Your task to perform on an android device: toggle show notifications on the lock screen Image 0: 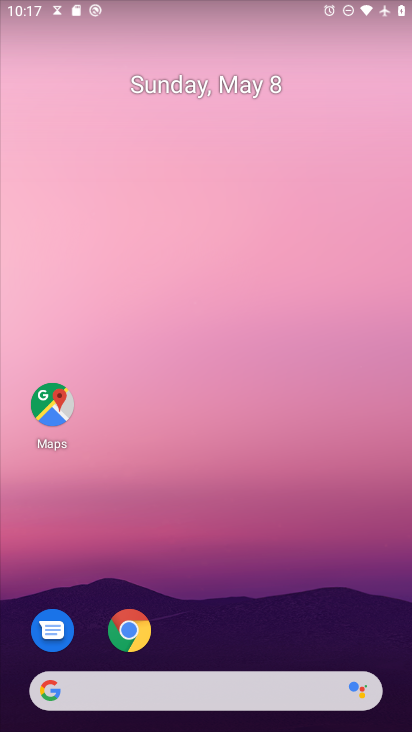
Step 0: drag from (224, 692) to (371, 365)
Your task to perform on an android device: toggle show notifications on the lock screen Image 1: 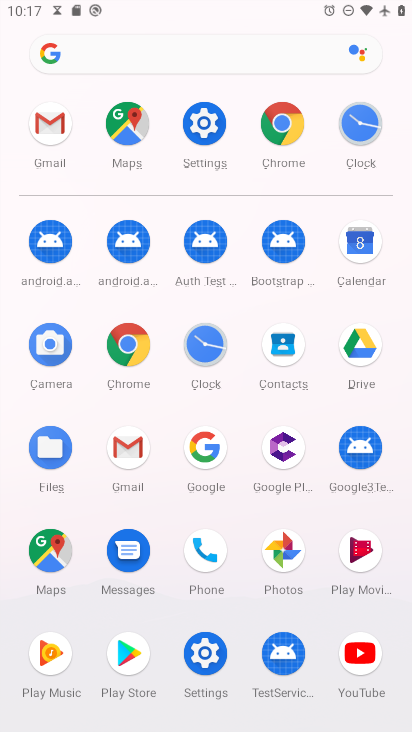
Step 1: click (210, 122)
Your task to perform on an android device: toggle show notifications on the lock screen Image 2: 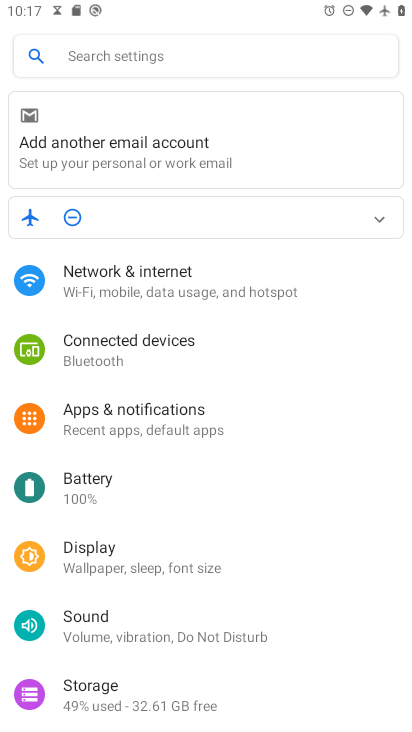
Step 2: click (136, 409)
Your task to perform on an android device: toggle show notifications on the lock screen Image 3: 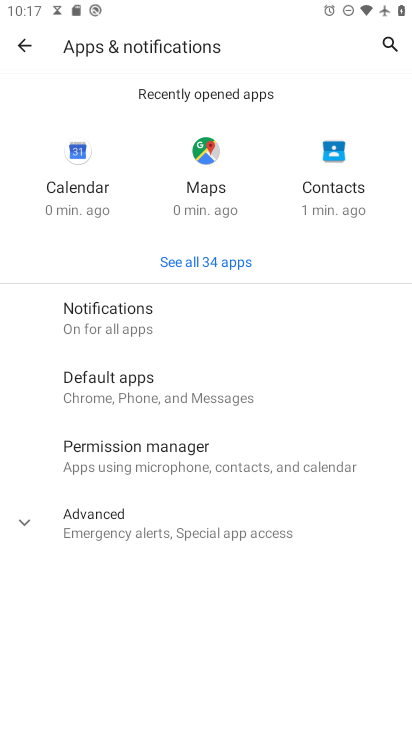
Step 3: click (141, 331)
Your task to perform on an android device: toggle show notifications on the lock screen Image 4: 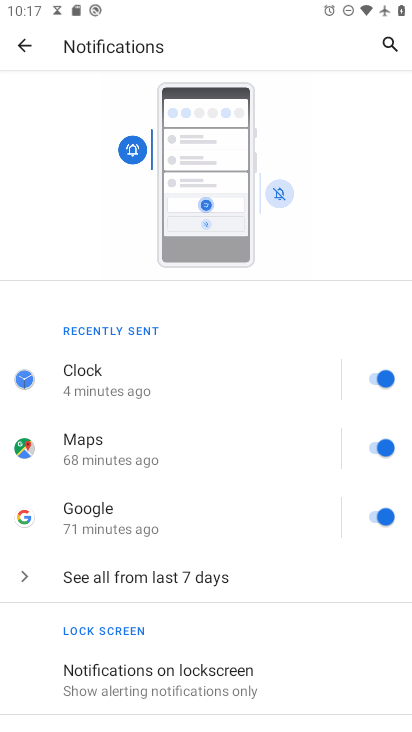
Step 4: click (183, 676)
Your task to perform on an android device: toggle show notifications on the lock screen Image 5: 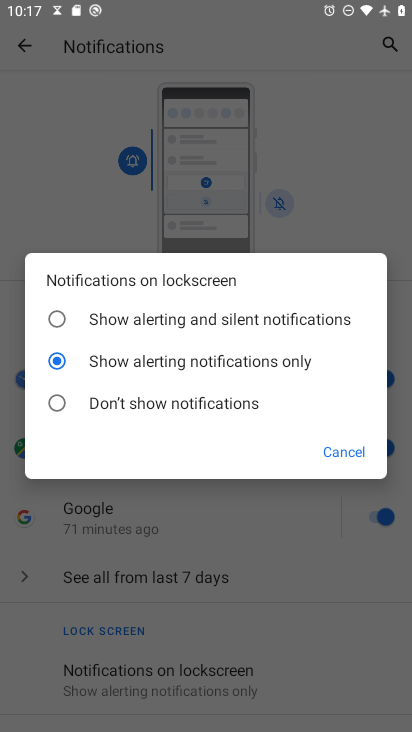
Step 5: click (53, 316)
Your task to perform on an android device: toggle show notifications on the lock screen Image 6: 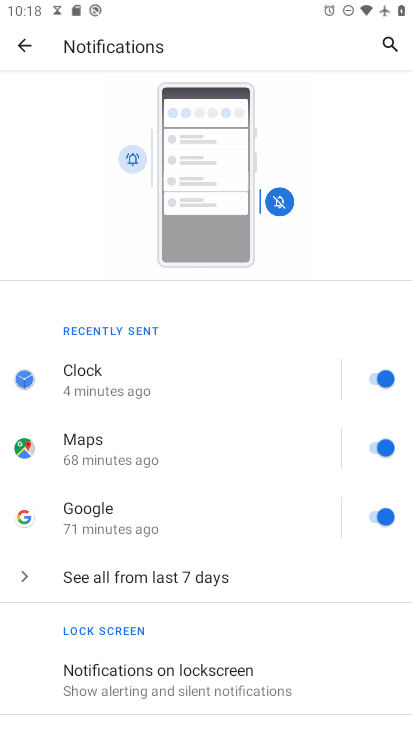
Step 6: task complete